Your task to perform on an android device: Is it going to rain tomorrow? Image 0: 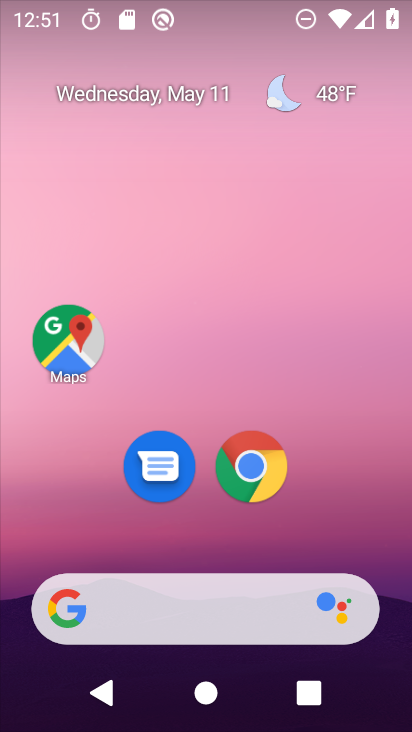
Step 0: drag from (215, 545) to (225, 94)
Your task to perform on an android device: Is it going to rain tomorrow? Image 1: 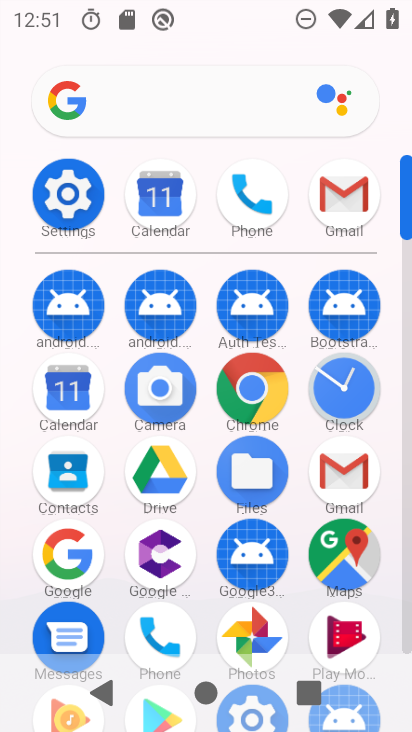
Step 1: press back button
Your task to perform on an android device: Is it going to rain tomorrow? Image 2: 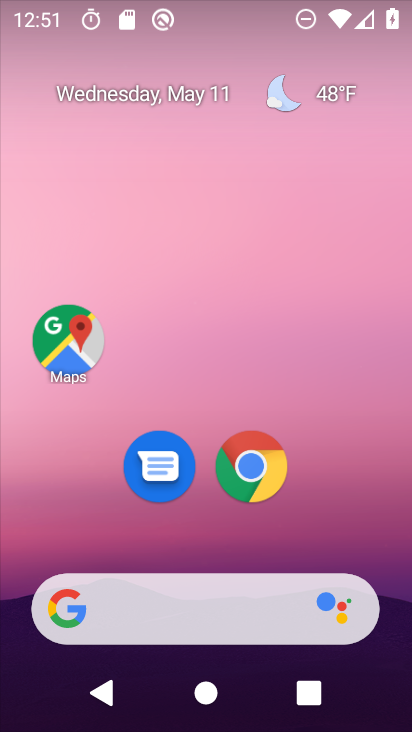
Step 2: click (326, 86)
Your task to perform on an android device: Is it going to rain tomorrow? Image 3: 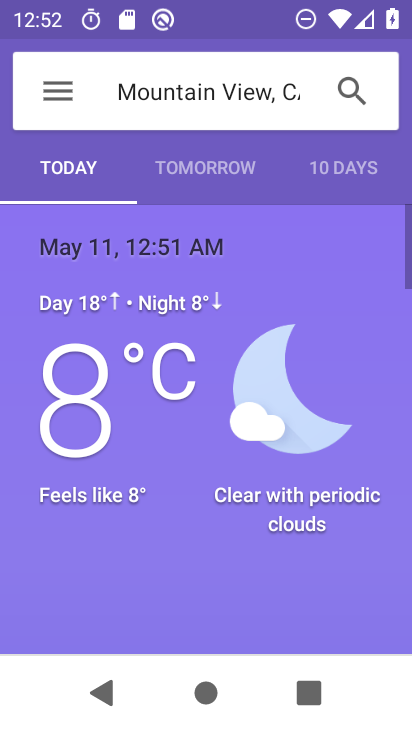
Step 3: click (202, 184)
Your task to perform on an android device: Is it going to rain tomorrow? Image 4: 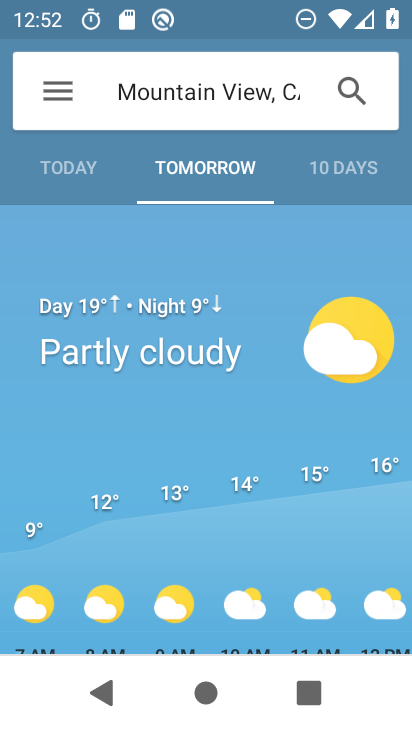
Step 4: task complete